Your task to perform on an android device: Open Amazon Image 0: 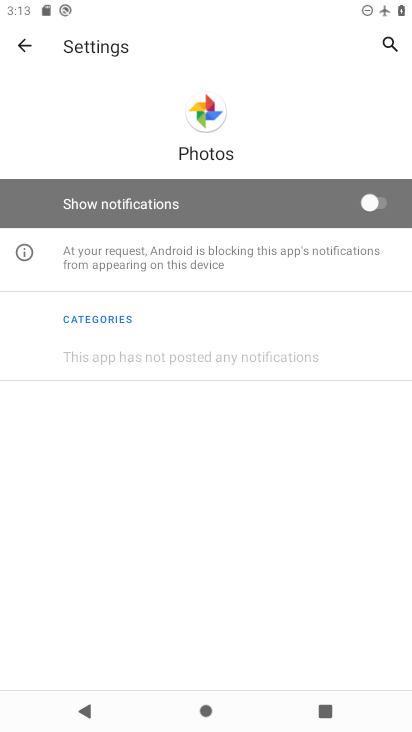
Step 0: press home button
Your task to perform on an android device: Open Amazon Image 1: 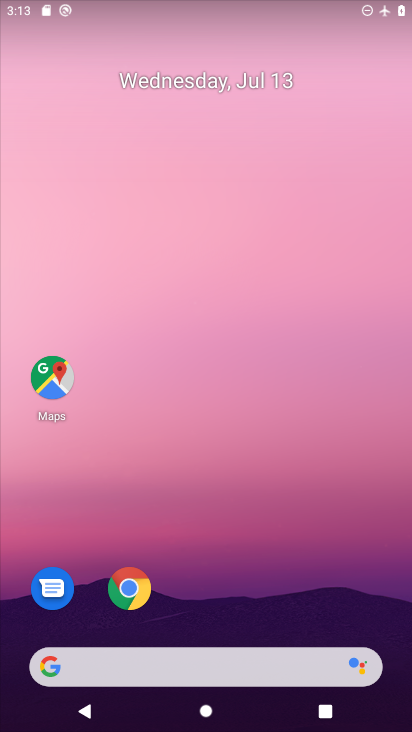
Step 1: drag from (194, 644) to (170, 186)
Your task to perform on an android device: Open Amazon Image 2: 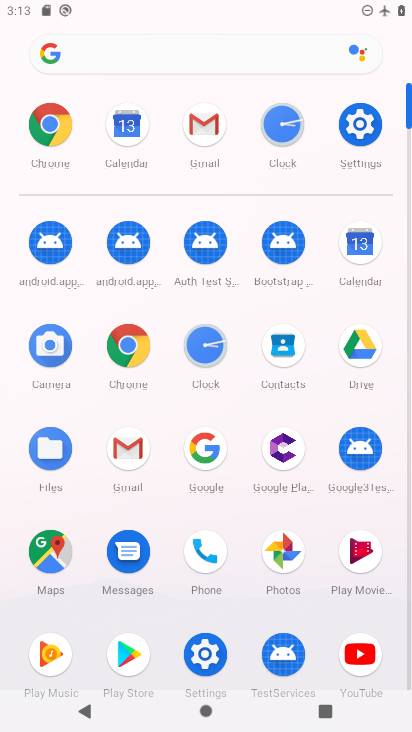
Step 2: click (138, 347)
Your task to perform on an android device: Open Amazon Image 3: 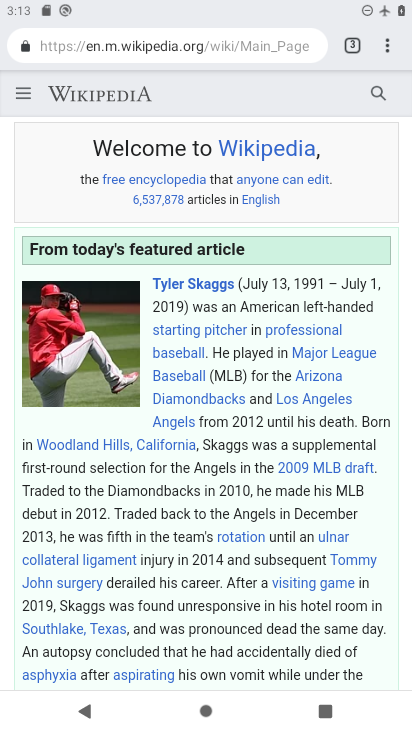
Step 3: click (349, 41)
Your task to perform on an android device: Open Amazon Image 4: 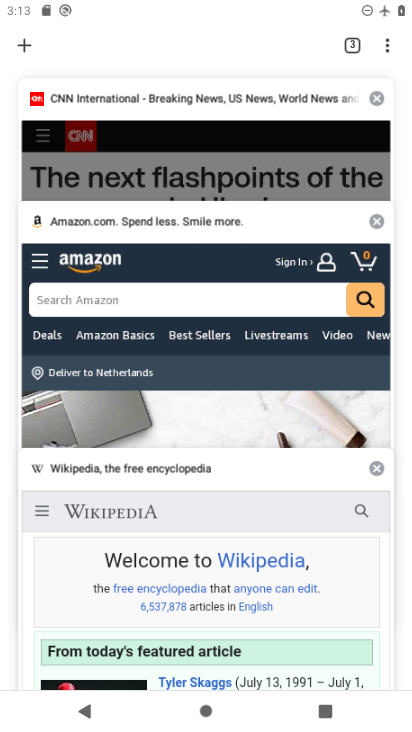
Step 4: click (30, 43)
Your task to perform on an android device: Open Amazon Image 5: 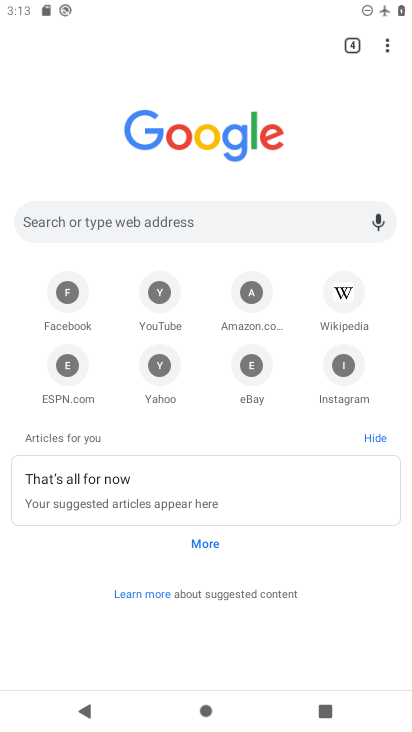
Step 5: click (243, 296)
Your task to perform on an android device: Open Amazon Image 6: 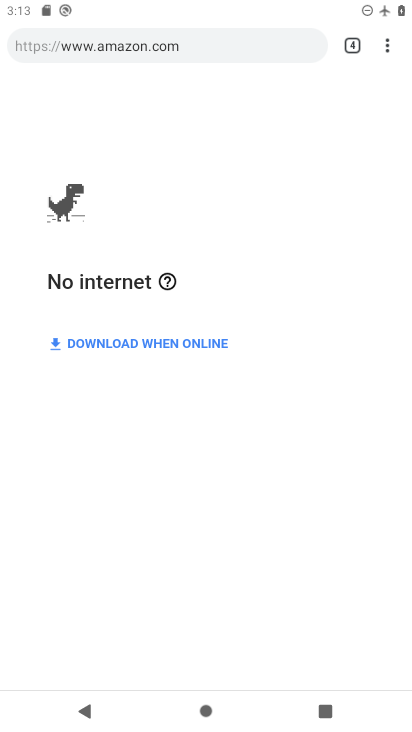
Step 6: task complete